Your task to perform on an android device: turn off wifi Image 0: 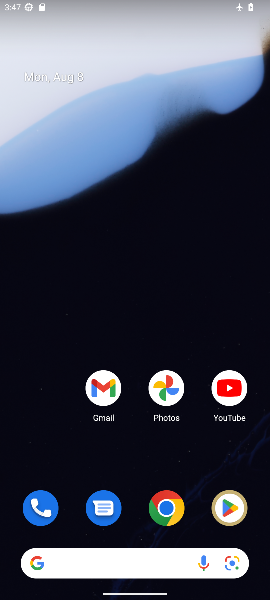
Step 0: drag from (123, 466) to (94, 104)
Your task to perform on an android device: turn off wifi Image 1: 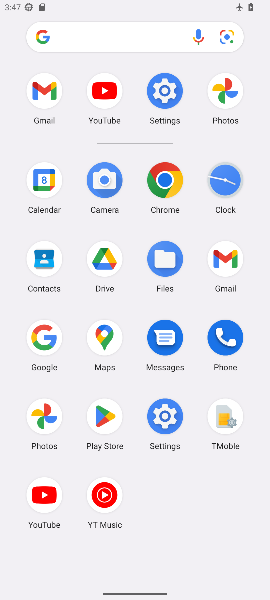
Step 1: click (169, 415)
Your task to perform on an android device: turn off wifi Image 2: 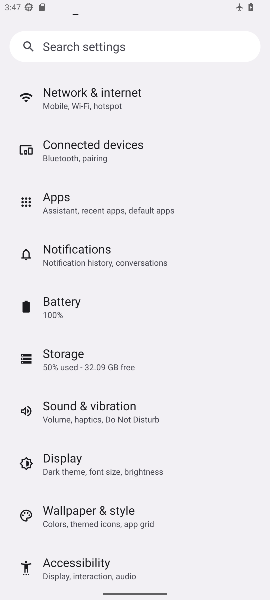
Step 2: click (65, 88)
Your task to perform on an android device: turn off wifi Image 3: 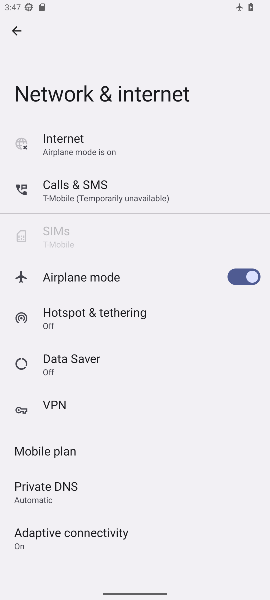
Step 3: click (82, 133)
Your task to perform on an android device: turn off wifi Image 4: 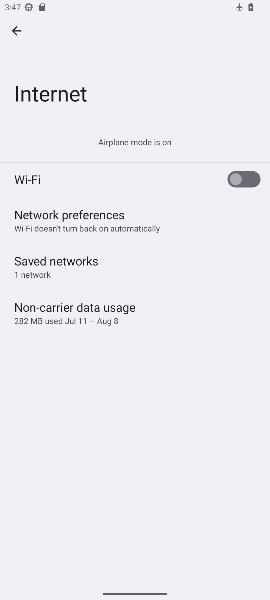
Step 4: task complete